Your task to perform on an android device: move a message to another label in the gmail app Image 0: 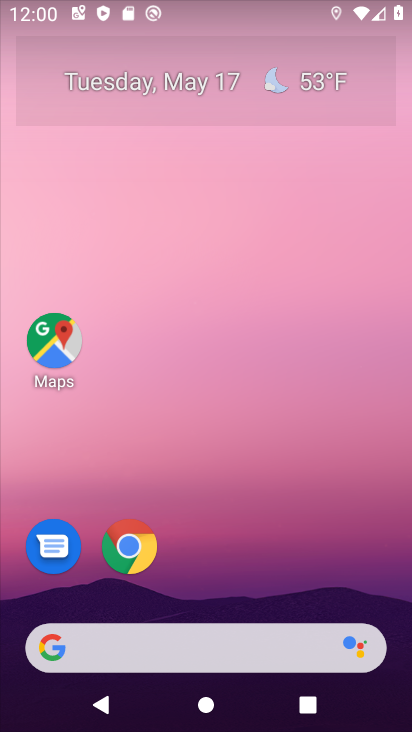
Step 0: drag from (247, 541) to (252, 163)
Your task to perform on an android device: move a message to another label in the gmail app Image 1: 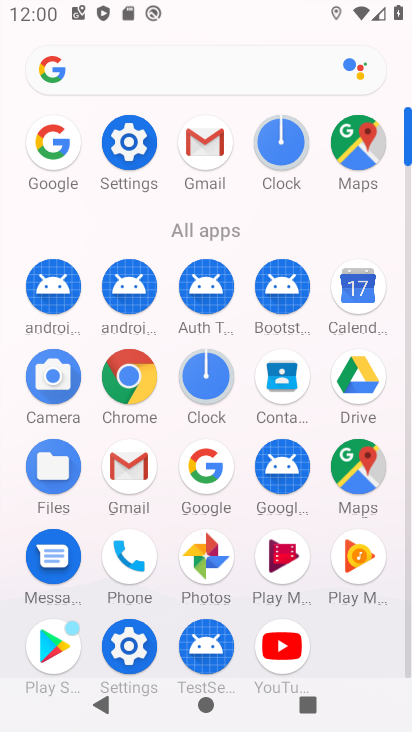
Step 1: click (203, 138)
Your task to perform on an android device: move a message to another label in the gmail app Image 2: 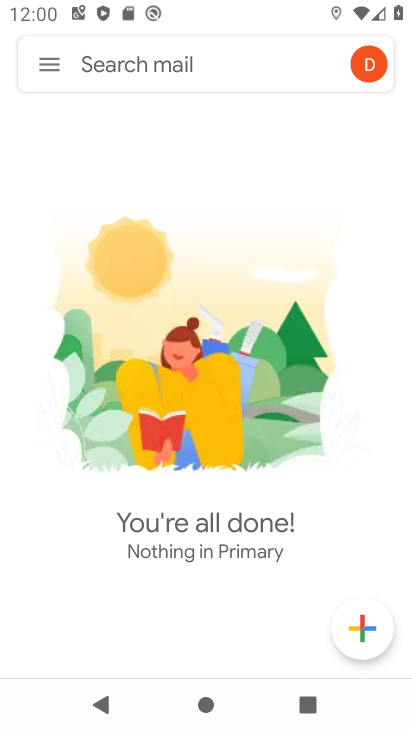
Step 2: click (47, 66)
Your task to perform on an android device: move a message to another label in the gmail app Image 3: 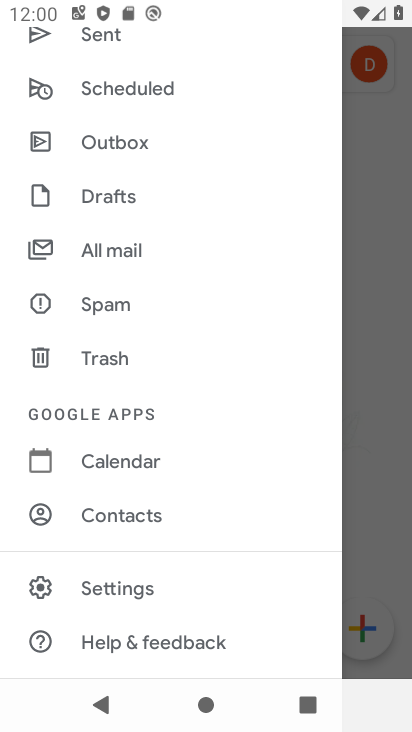
Step 3: drag from (170, 257) to (182, 579)
Your task to perform on an android device: move a message to another label in the gmail app Image 4: 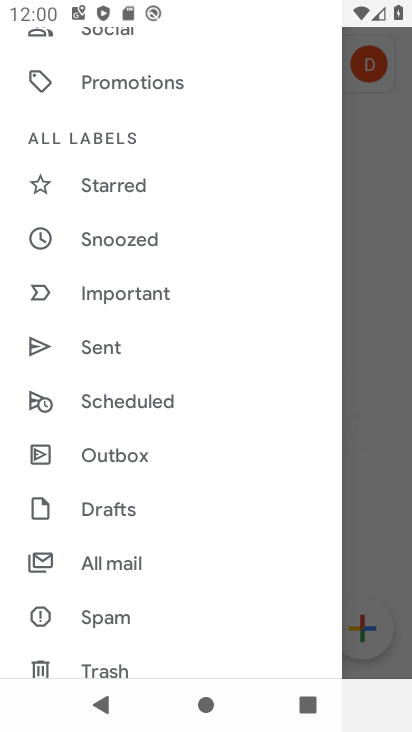
Step 4: drag from (140, 166) to (159, 214)
Your task to perform on an android device: move a message to another label in the gmail app Image 5: 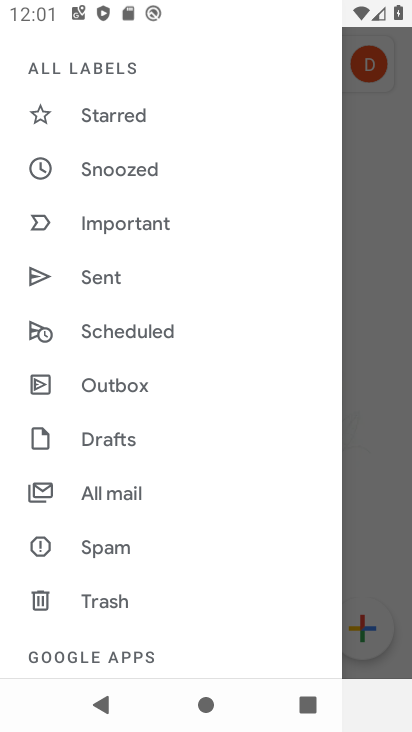
Step 5: drag from (187, 513) to (85, 253)
Your task to perform on an android device: move a message to another label in the gmail app Image 6: 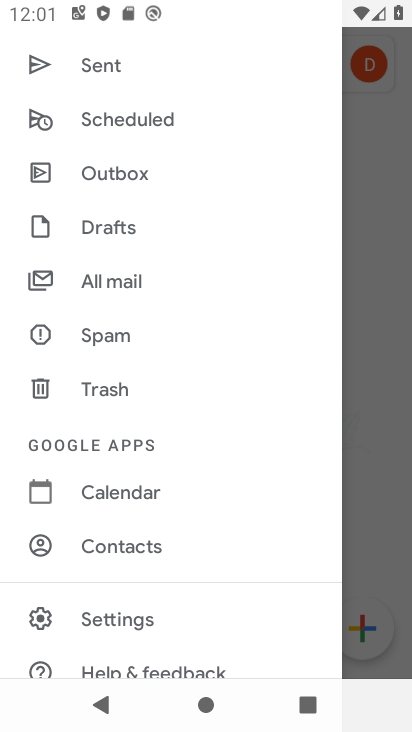
Step 6: click (128, 273)
Your task to perform on an android device: move a message to another label in the gmail app Image 7: 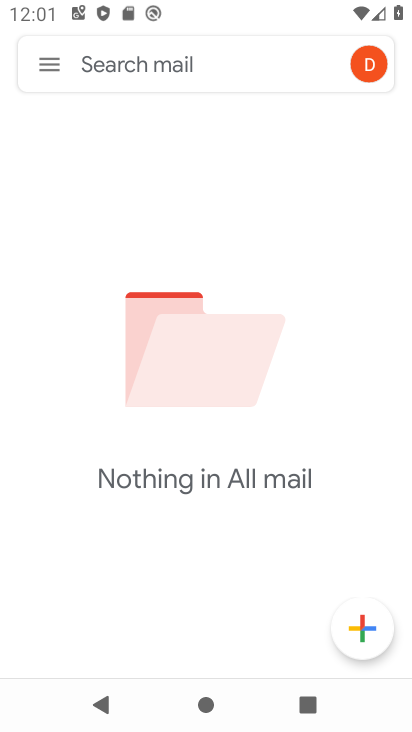
Step 7: task complete